Your task to perform on an android device: Go to battery settings Image 0: 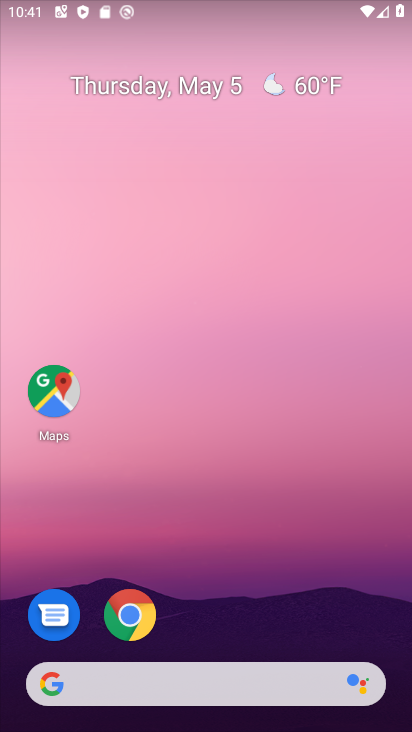
Step 0: drag from (237, 593) to (275, 130)
Your task to perform on an android device: Go to battery settings Image 1: 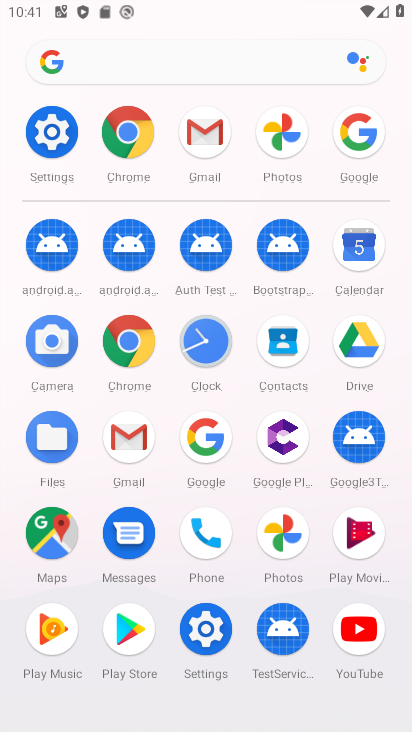
Step 1: click (59, 133)
Your task to perform on an android device: Go to battery settings Image 2: 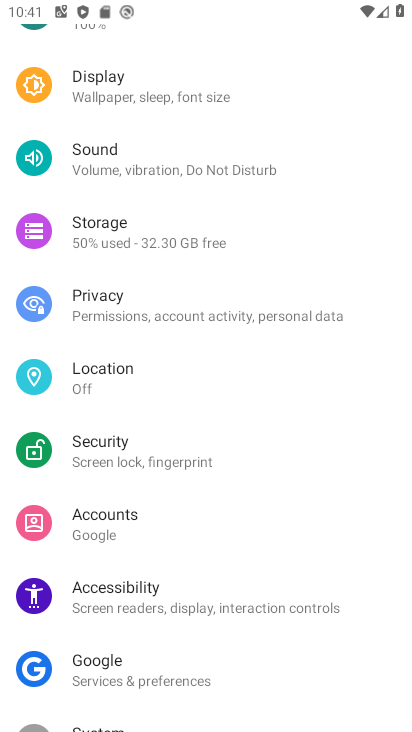
Step 2: drag from (205, 581) to (260, 726)
Your task to perform on an android device: Go to battery settings Image 3: 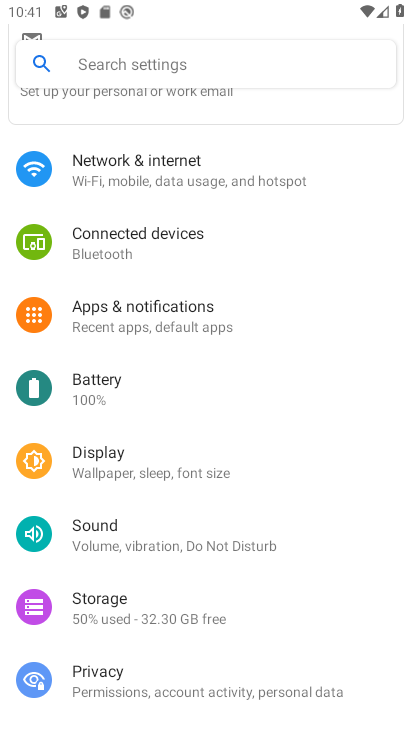
Step 3: drag from (193, 230) to (225, 455)
Your task to perform on an android device: Go to battery settings Image 4: 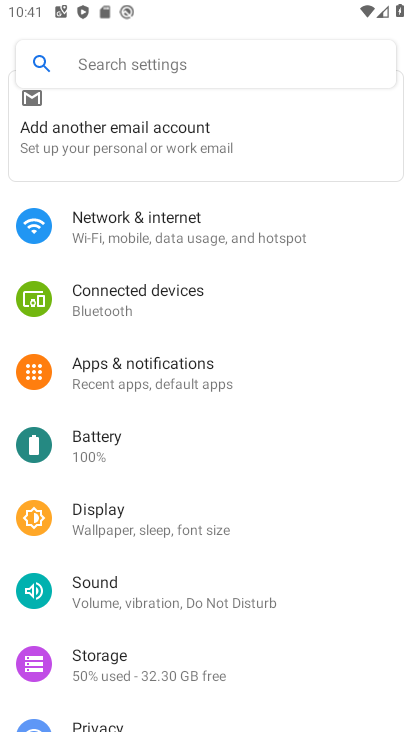
Step 4: click (120, 448)
Your task to perform on an android device: Go to battery settings Image 5: 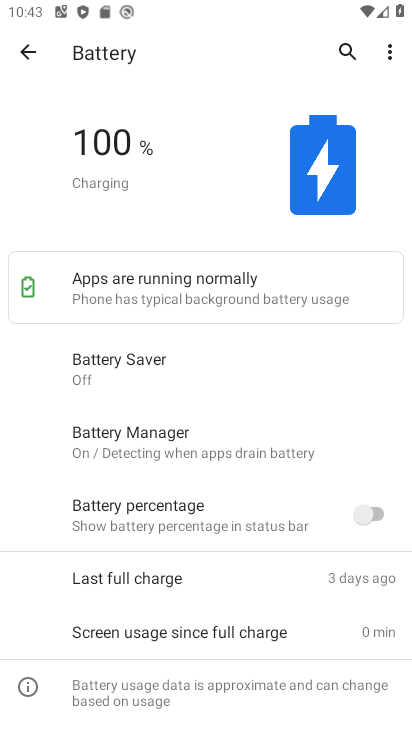
Step 5: task complete